Your task to perform on an android device: check android version Image 0: 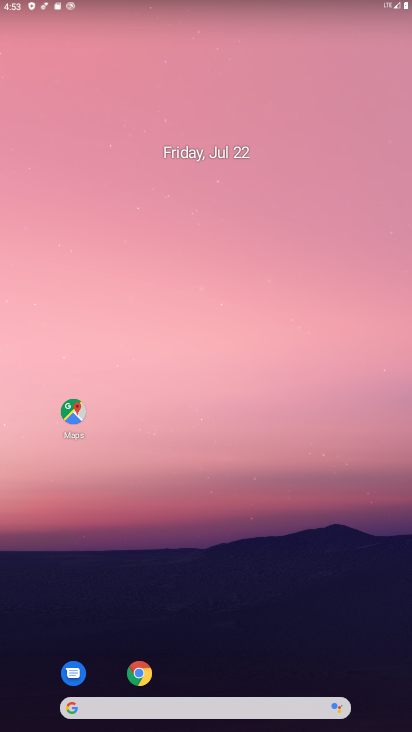
Step 0: press home button
Your task to perform on an android device: check android version Image 1: 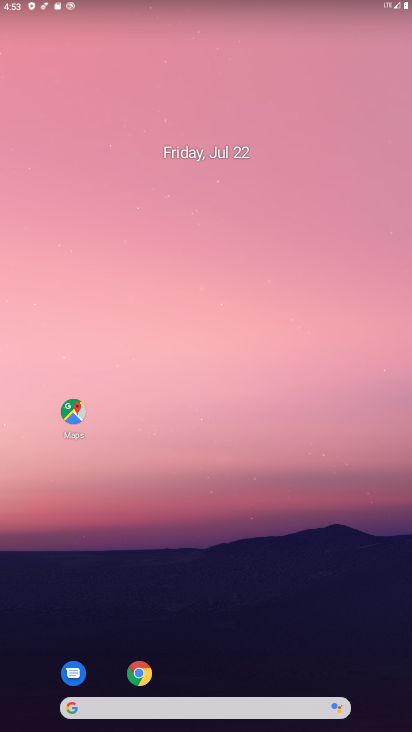
Step 1: drag from (220, 669) to (231, 41)
Your task to perform on an android device: check android version Image 2: 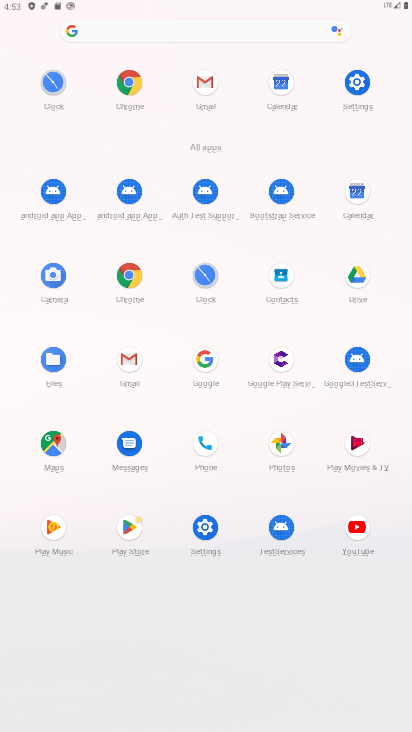
Step 2: click (360, 83)
Your task to perform on an android device: check android version Image 3: 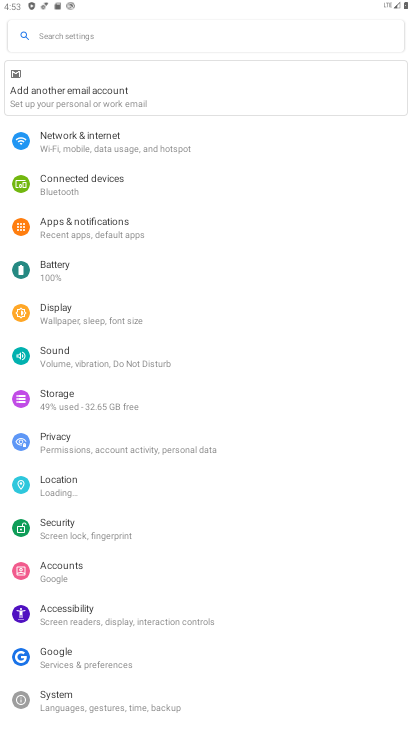
Step 3: drag from (134, 504) to (163, 212)
Your task to perform on an android device: check android version Image 4: 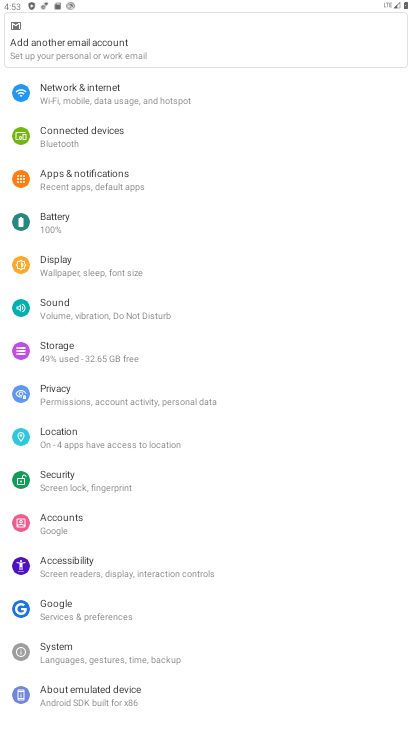
Step 4: click (90, 700)
Your task to perform on an android device: check android version Image 5: 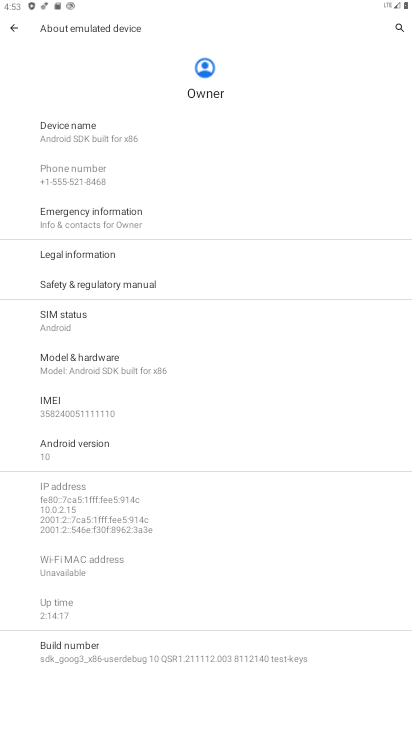
Step 5: click (65, 448)
Your task to perform on an android device: check android version Image 6: 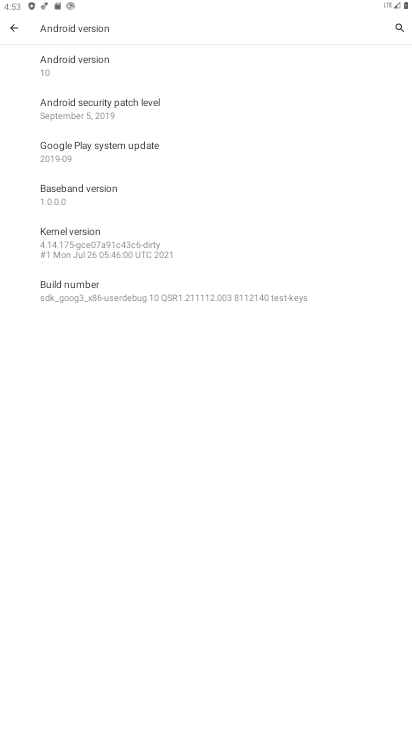
Step 6: task complete